Your task to perform on an android device: change keyboard looks Image 0: 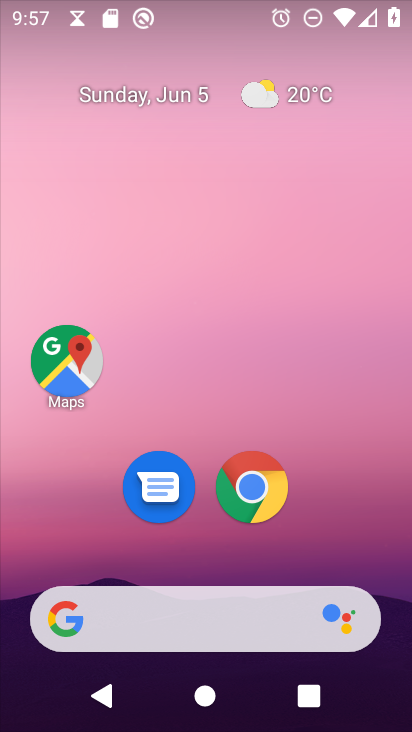
Step 0: click (278, 518)
Your task to perform on an android device: change keyboard looks Image 1: 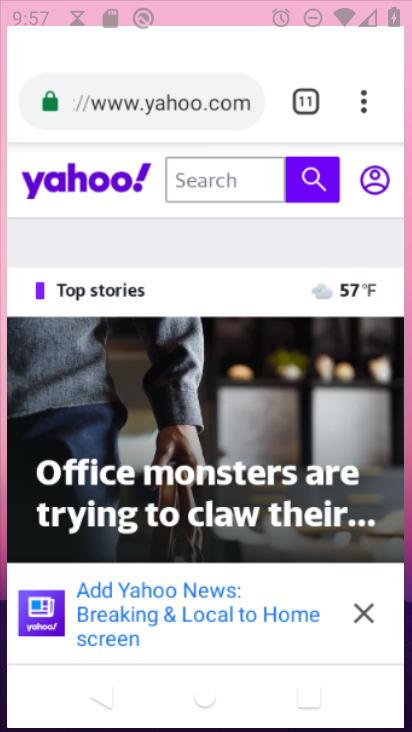
Step 1: click (276, 178)
Your task to perform on an android device: change keyboard looks Image 2: 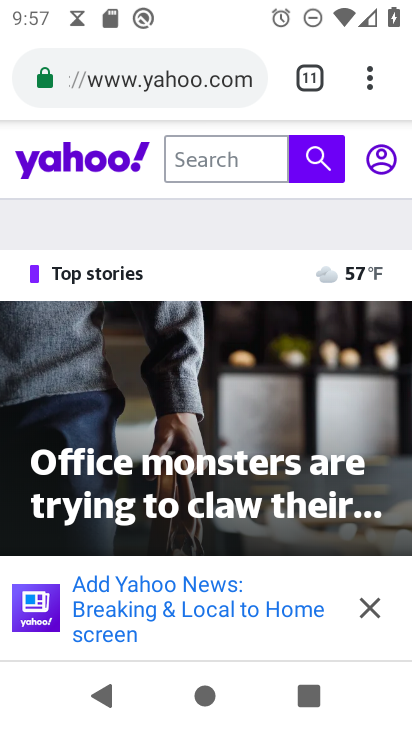
Step 2: click (353, 57)
Your task to perform on an android device: change keyboard looks Image 3: 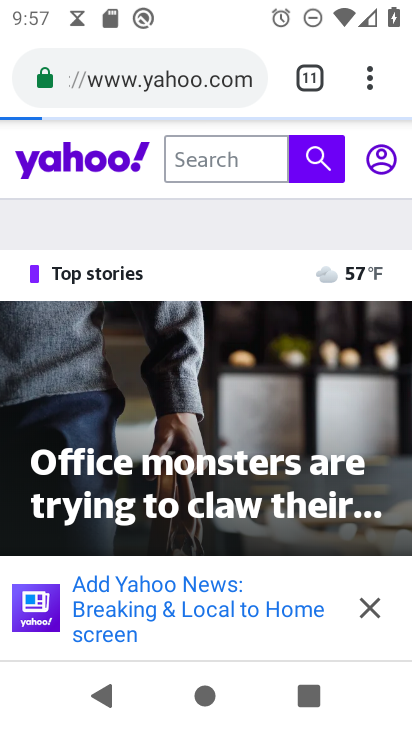
Step 3: press home button
Your task to perform on an android device: change keyboard looks Image 4: 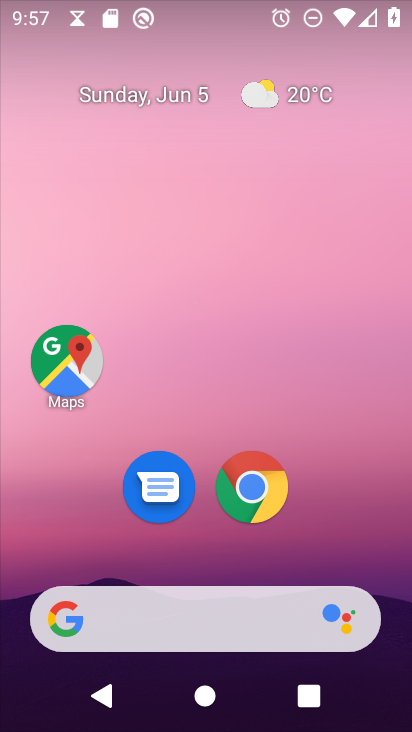
Step 4: drag from (196, 534) to (241, 33)
Your task to perform on an android device: change keyboard looks Image 5: 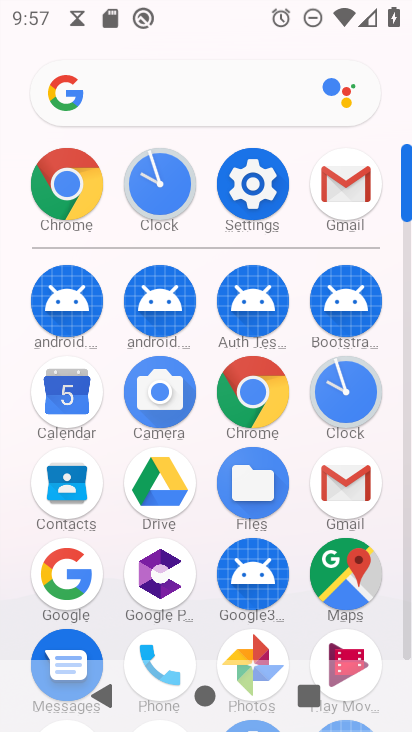
Step 5: click (243, 178)
Your task to perform on an android device: change keyboard looks Image 6: 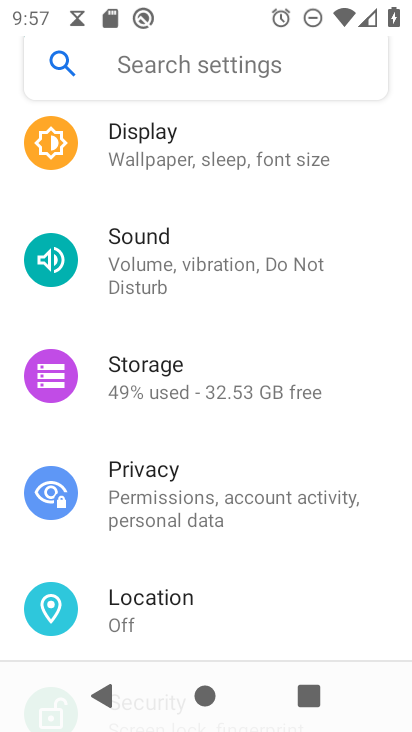
Step 6: drag from (191, 582) to (238, 155)
Your task to perform on an android device: change keyboard looks Image 7: 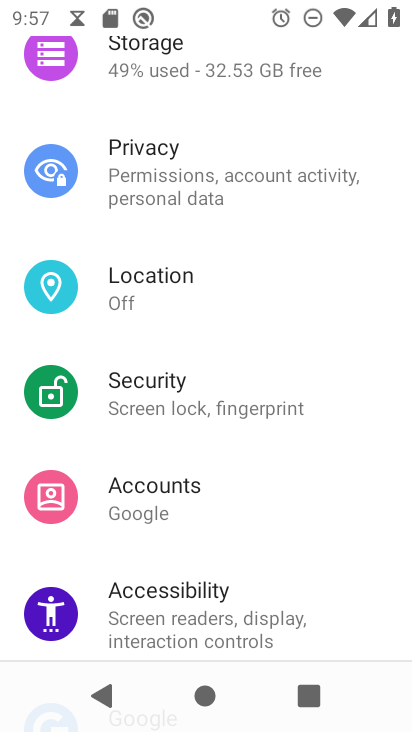
Step 7: drag from (127, 581) to (176, 284)
Your task to perform on an android device: change keyboard looks Image 8: 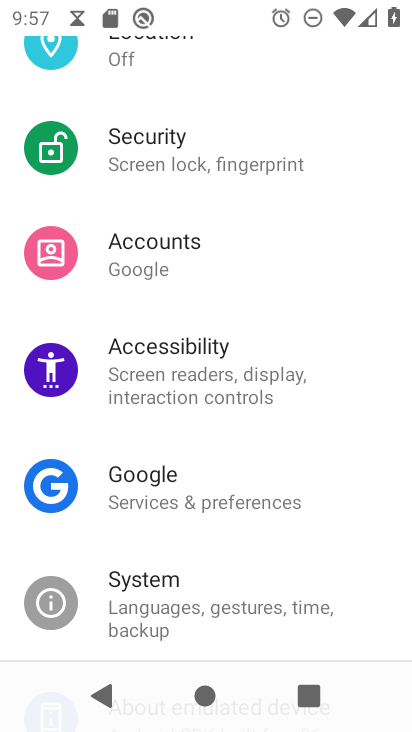
Step 8: click (170, 602)
Your task to perform on an android device: change keyboard looks Image 9: 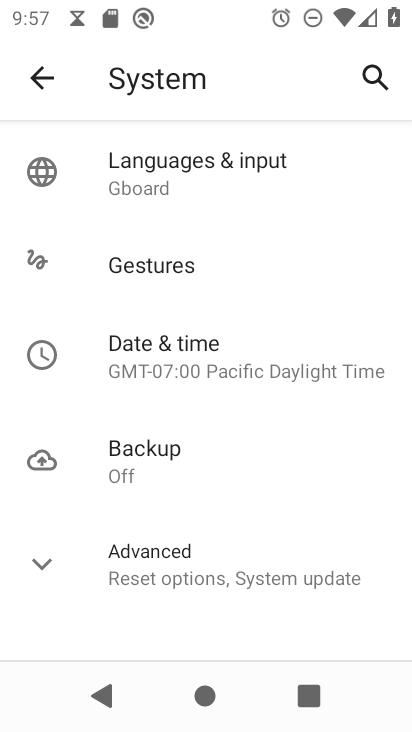
Step 9: click (213, 190)
Your task to perform on an android device: change keyboard looks Image 10: 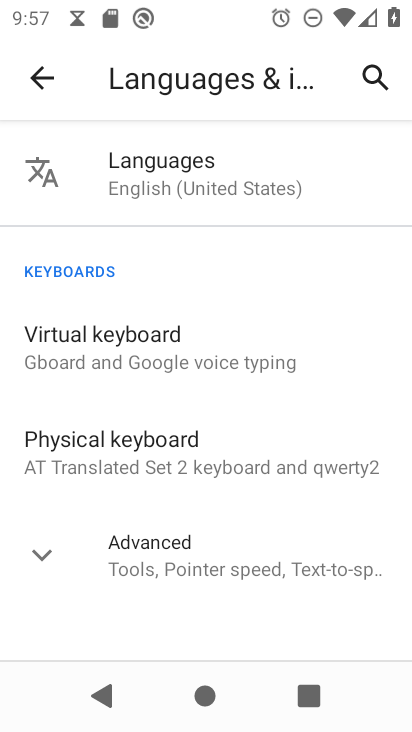
Step 10: click (107, 338)
Your task to perform on an android device: change keyboard looks Image 11: 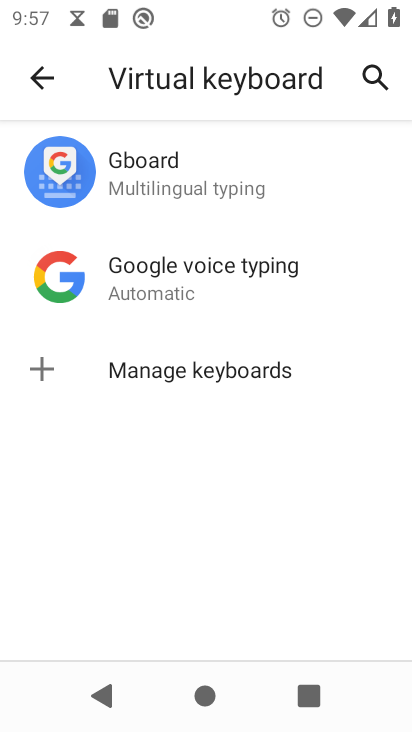
Step 11: click (142, 169)
Your task to perform on an android device: change keyboard looks Image 12: 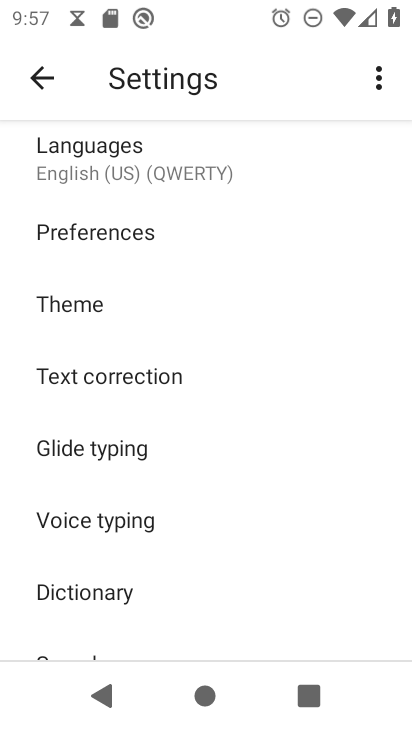
Step 12: click (66, 299)
Your task to perform on an android device: change keyboard looks Image 13: 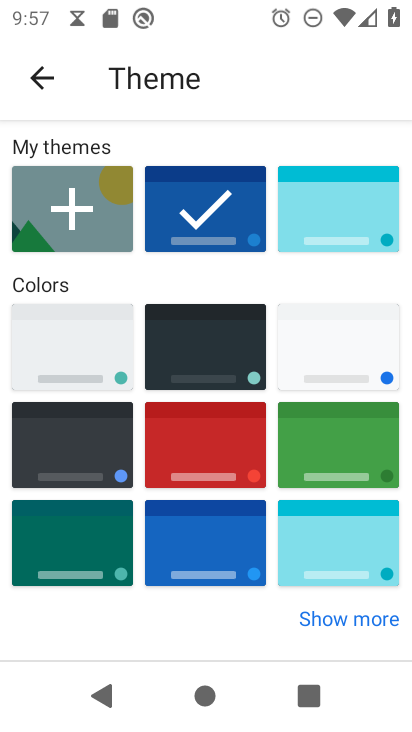
Step 13: click (314, 454)
Your task to perform on an android device: change keyboard looks Image 14: 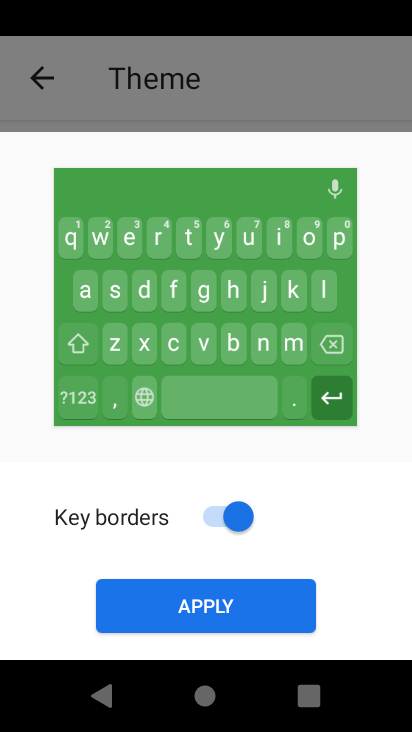
Step 14: click (219, 604)
Your task to perform on an android device: change keyboard looks Image 15: 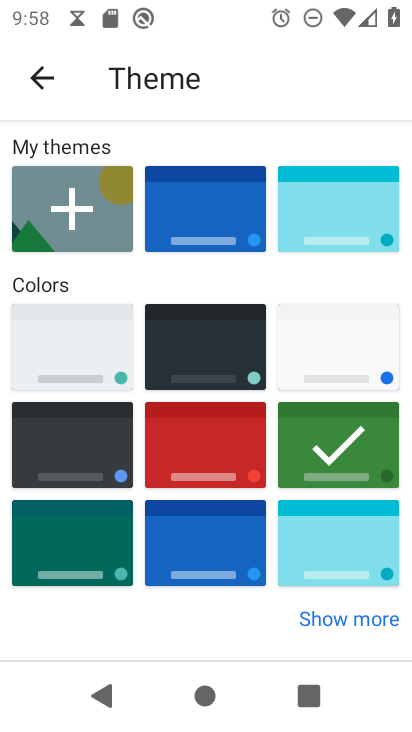
Step 15: task complete